Your task to perform on an android device: turn notification dots off Image 0: 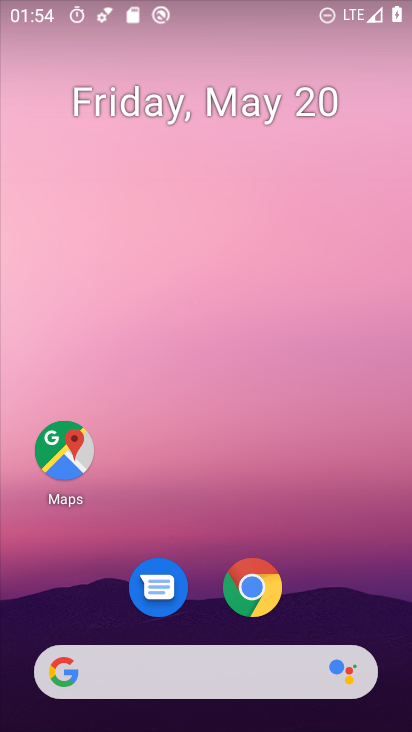
Step 0: drag from (379, 626) to (356, 125)
Your task to perform on an android device: turn notification dots off Image 1: 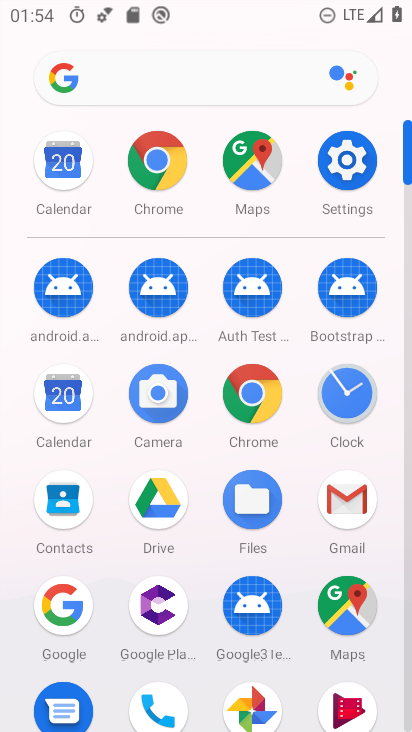
Step 1: click (364, 187)
Your task to perform on an android device: turn notification dots off Image 2: 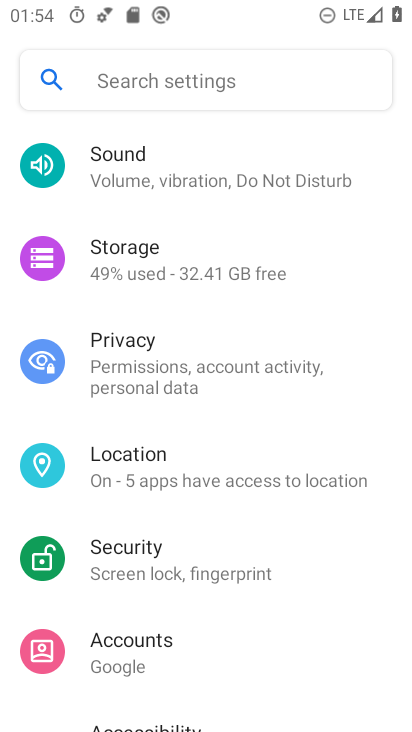
Step 2: drag from (347, 632) to (350, 554)
Your task to perform on an android device: turn notification dots off Image 3: 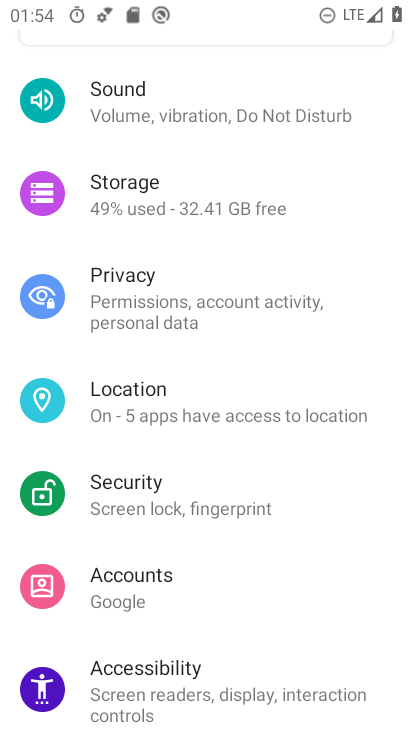
Step 3: drag from (343, 643) to (344, 545)
Your task to perform on an android device: turn notification dots off Image 4: 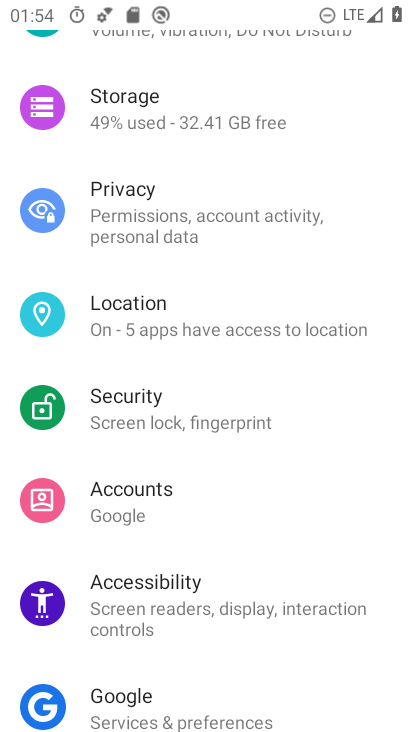
Step 4: drag from (349, 663) to (353, 570)
Your task to perform on an android device: turn notification dots off Image 5: 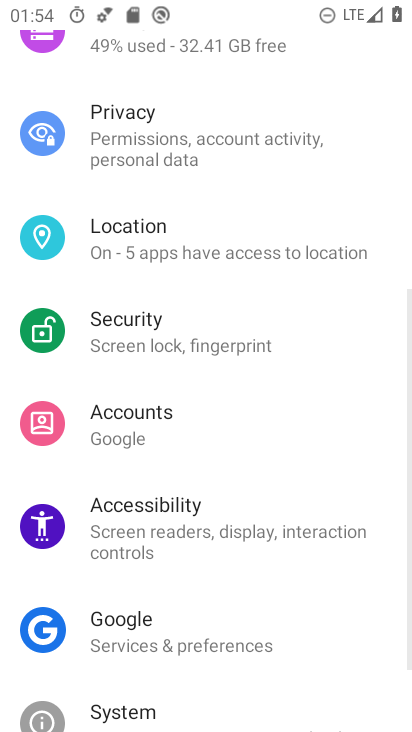
Step 5: drag from (349, 651) to (347, 577)
Your task to perform on an android device: turn notification dots off Image 6: 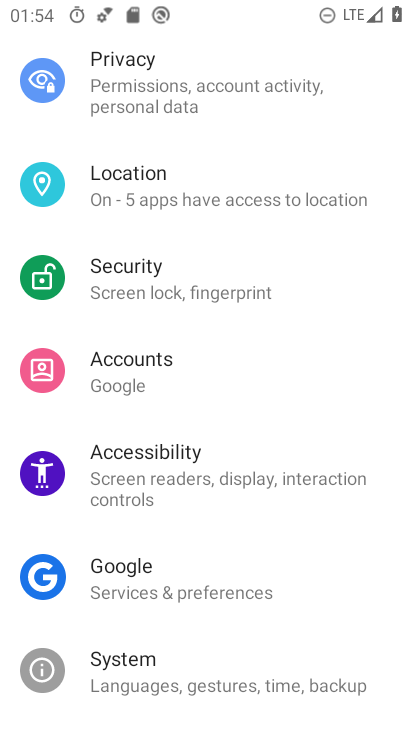
Step 6: drag from (358, 667) to (358, 565)
Your task to perform on an android device: turn notification dots off Image 7: 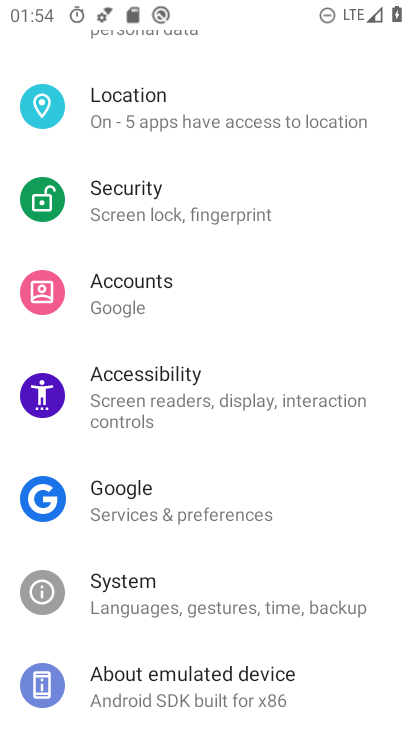
Step 7: drag from (355, 658) to (350, 541)
Your task to perform on an android device: turn notification dots off Image 8: 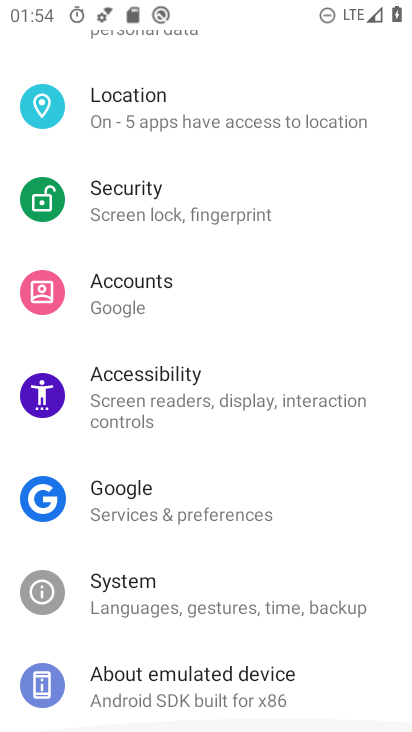
Step 8: drag from (350, 452) to (351, 537)
Your task to perform on an android device: turn notification dots off Image 9: 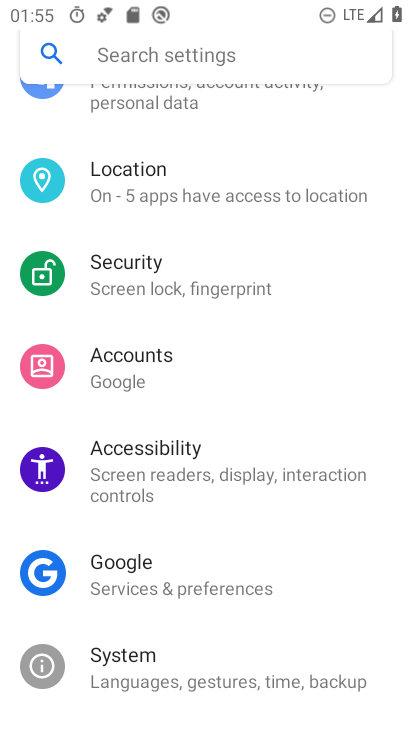
Step 9: drag from (366, 421) to (370, 518)
Your task to perform on an android device: turn notification dots off Image 10: 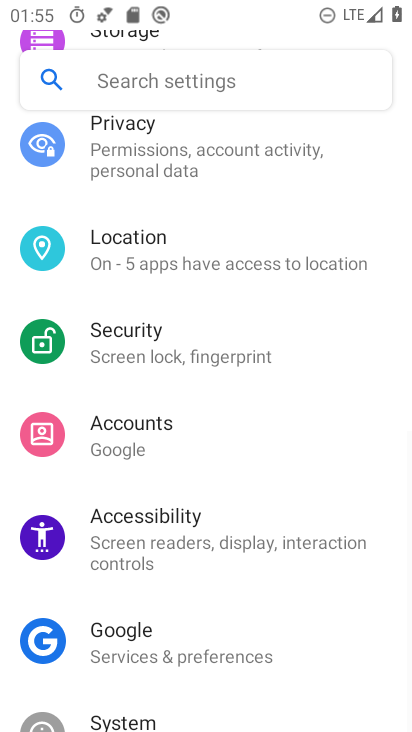
Step 10: drag from (370, 396) to (370, 486)
Your task to perform on an android device: turn notification dots off Image 11: 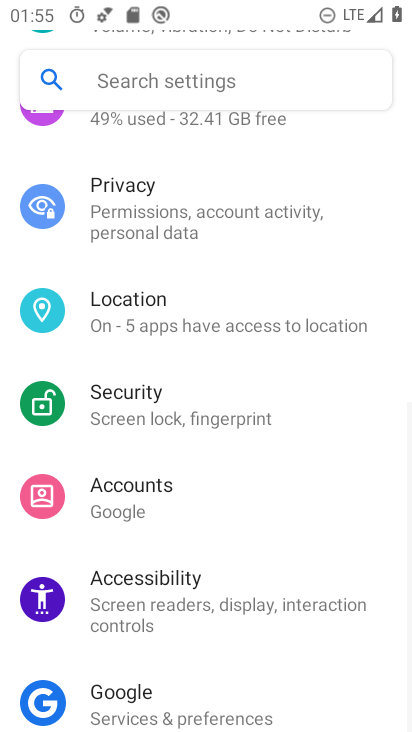
Step 11: drag from (364, 375) to (369, 460)
Your task to perform on an android device: turn notification dots off Image 12: 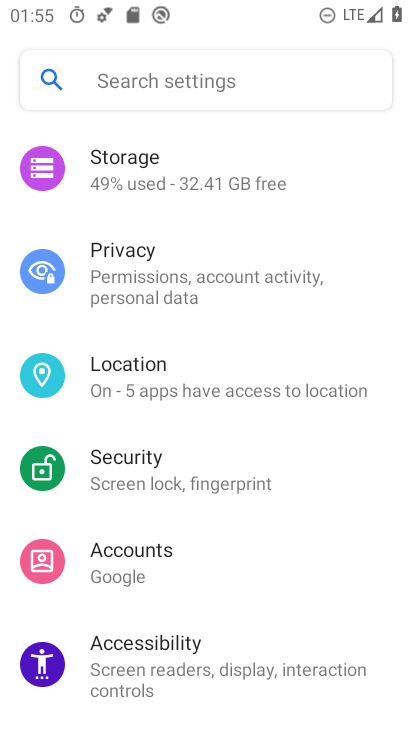
Step 12: drag from (368, 329) to (360, 433)
Your task to perform on an android device: turn notification dots off Image 13: 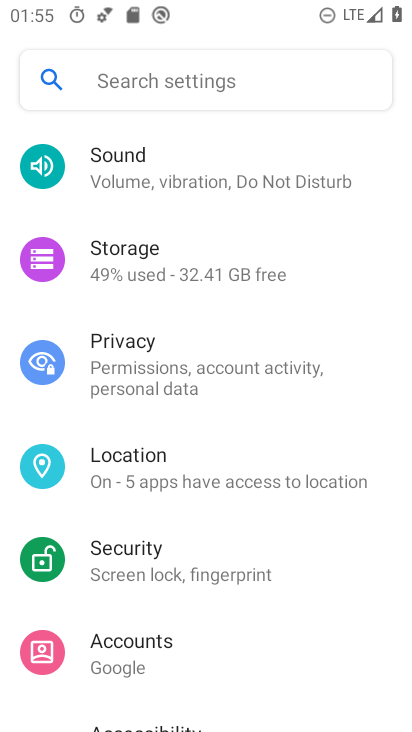
Step 13: drag from (366, 326) to (367, 415)
Your task to perform on an android device: turn notification dots off Image 14: 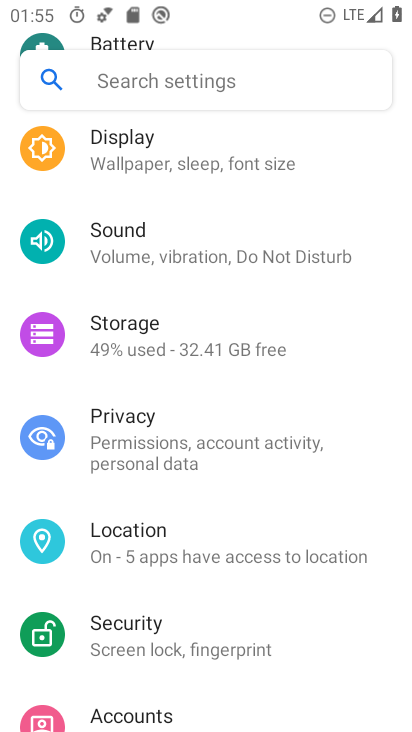
Step 14: drag from (364, 303) to (358, 386)
Your task to perform on an android device: turn notification dots off Image 15: 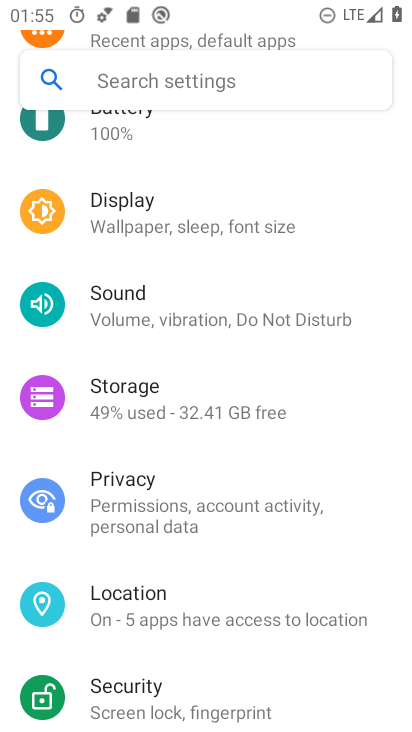
Step 15: drag from (366, 260) to (362, 379)
Your task to perform on an android device: turn notification dots off Image 16: 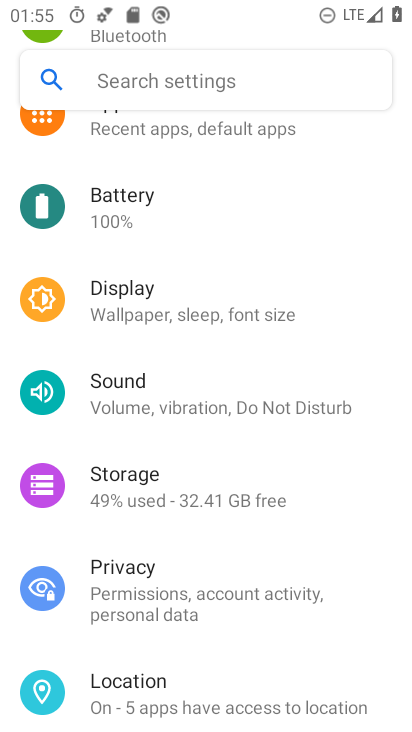
Step 16: drag from (370, 275) to (361, 369)
Your task to perform on an android device: turn notification dots off Image 17: 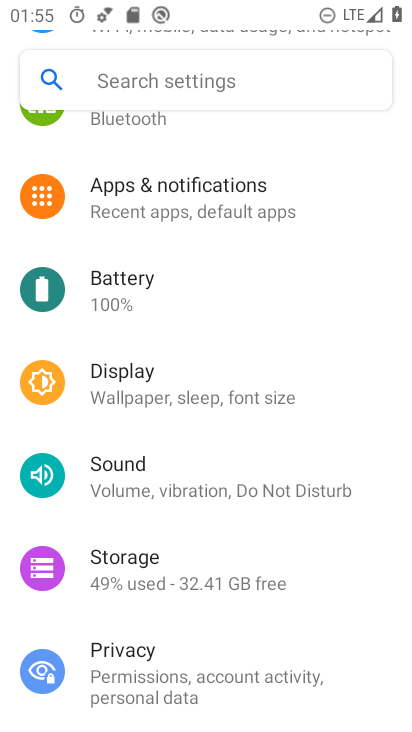
Step 17: drag from (361, 281) to (357, 356)
Your task to perform on an android device: turn notification dots off Image 18: 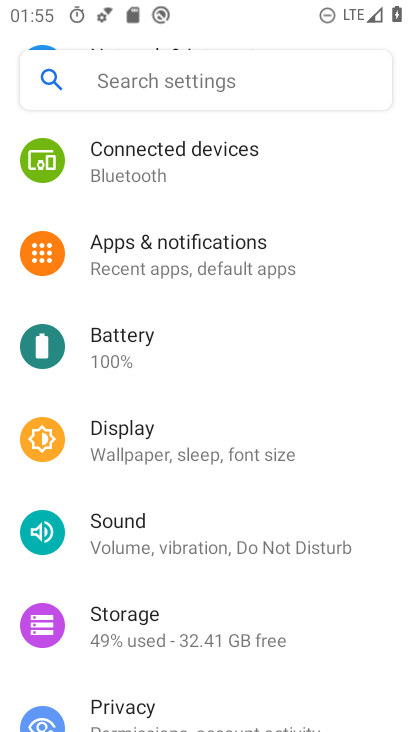
Step 18: drag from (357, 266) to (352, 346)
Your task to perform on an android device: turn notification dots off Image 19: 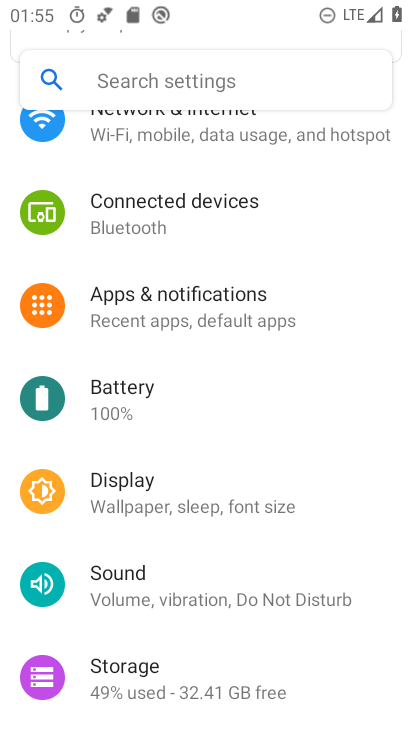
Step 19: click (219, 324)
Your task to perform on an android device: turn notification dots off Image 20: 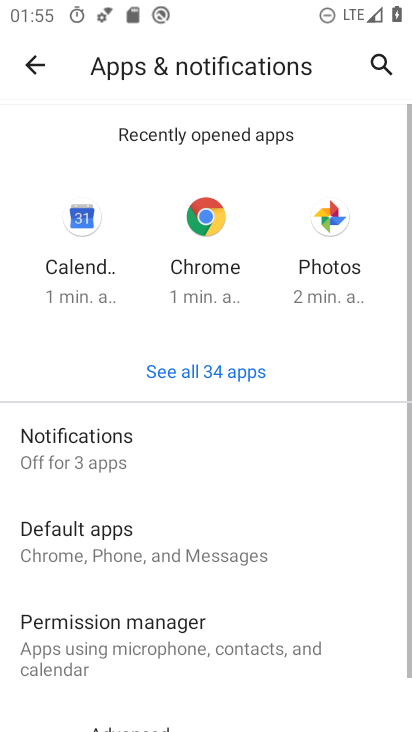
Step 20: drag from (283, 474) to (300, 376)
Your task to perform on an android device: turn notification dots off Image 21: 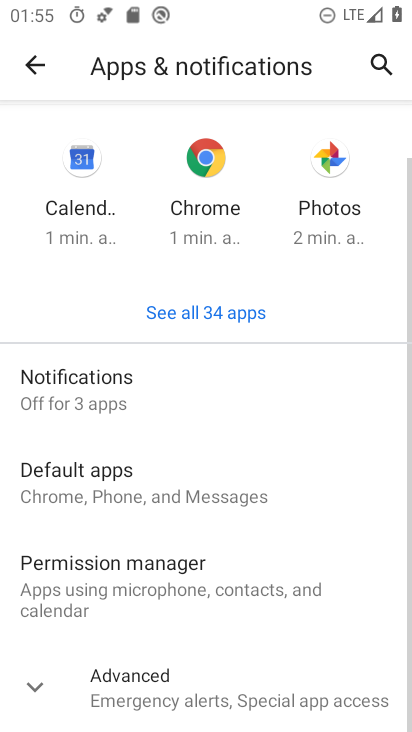
Step 21: drag from (310, 498) to (316, 401)
Your task to perform on an android device: turn notification dots off Image 22: 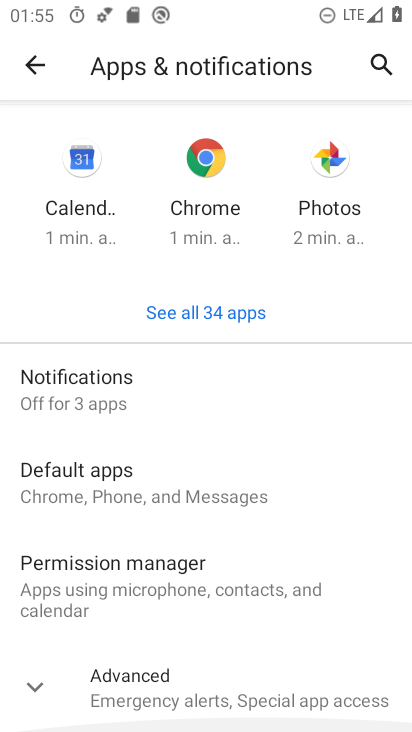
Step 22: click (105, 386)
Your task to perform on an android device: turn notification dots off Image 23: 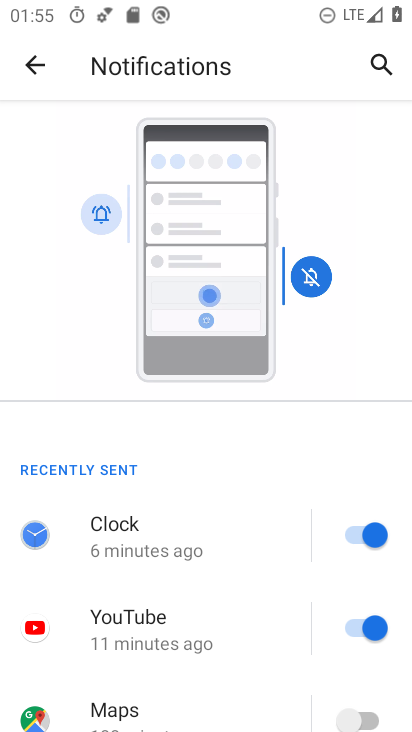
Step 23: drag from (253, 554) to (250, 467)
Your task to perform on an android device: turn notification dots off Image 24: 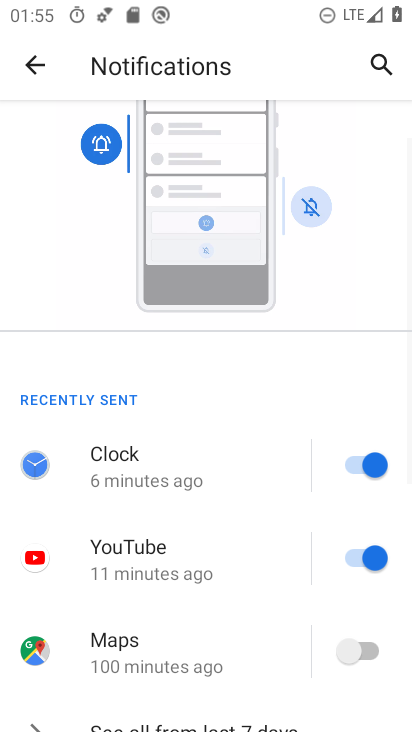
Step 24: drag from (262, 578) to (260, 498)
Your task to perform on an android device: turn notification dots off Image 25: 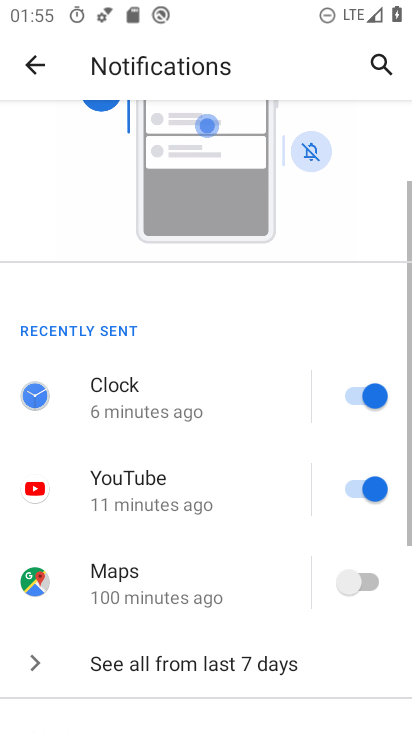
Step 25: drag from (270, 600) to (270, 533)
Your task to perform on an android device: turn notification dots off Image 26: 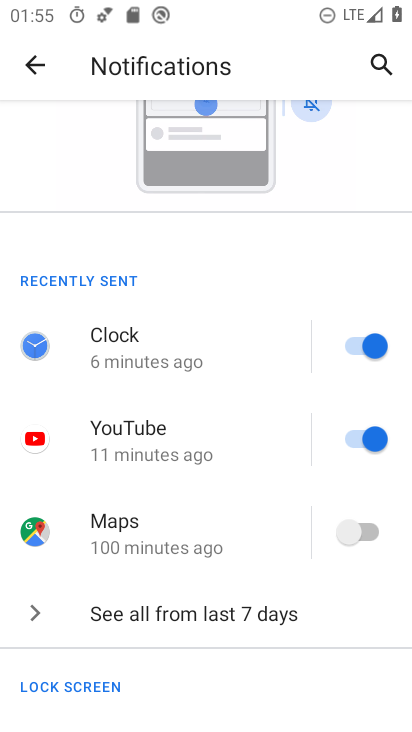
Step 26: drag from (266, 618) to (265, 536)
Your task to perform on an android device: turn notification dots off Image 27: 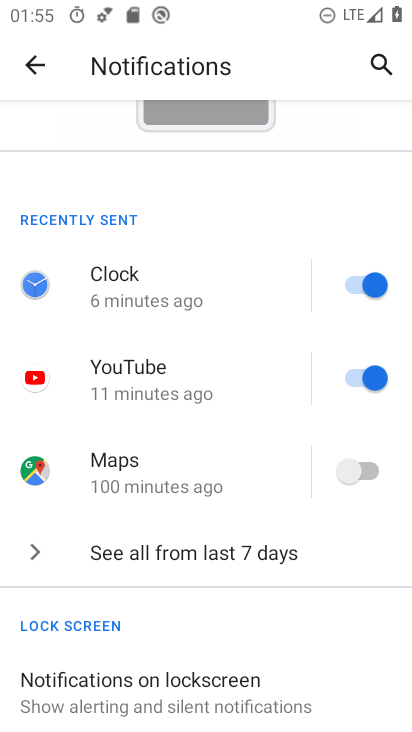
Step 27: drag from (263, 622) to (264, 566)
Your task to perform on an android device: turn notification dots off Image 28: 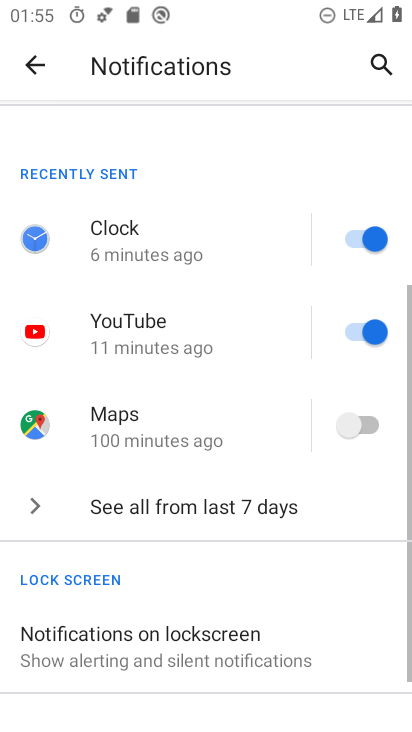
Step 28: drag from (265, 619) to (266, 545)
Your task to perform on an android device: turn notification dots off Image 29: 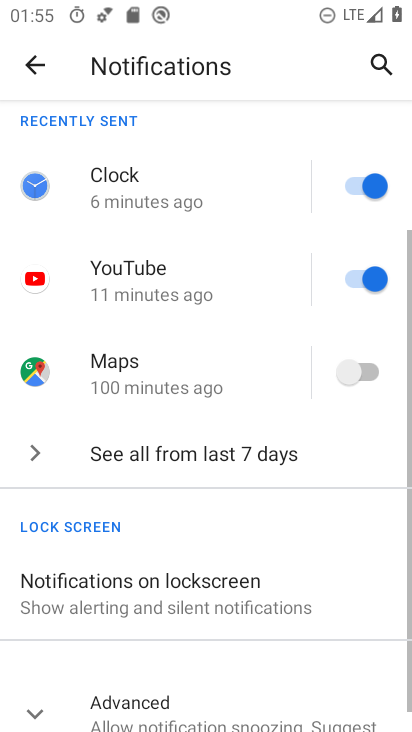
Step 29: drag from (264, 632) to (266, 562)
Your task to perform on an android device: turn notification dots off Image 30: 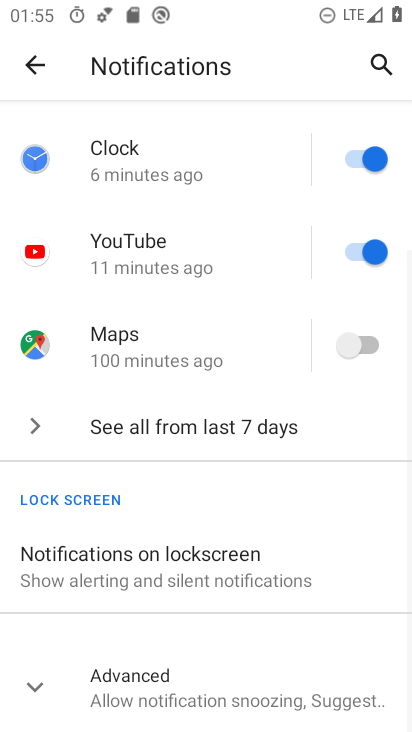
Step 30: click (260, 590)
Your task to perform on an android device: turn notification dots off Image 31: 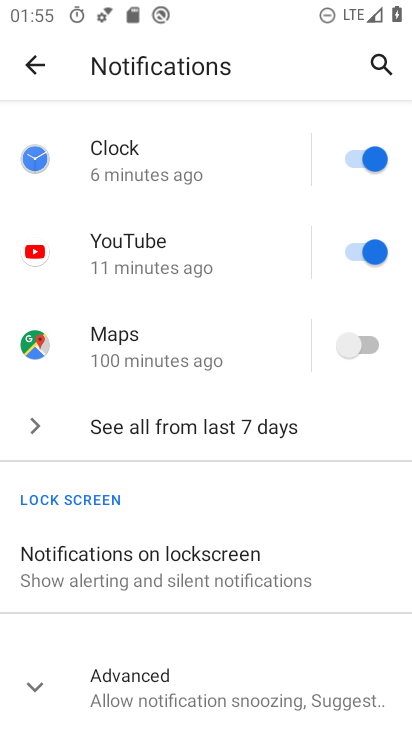
Step 31: click (239, 703)
Your task to perform on an android device: turn notification dots off Image 32: 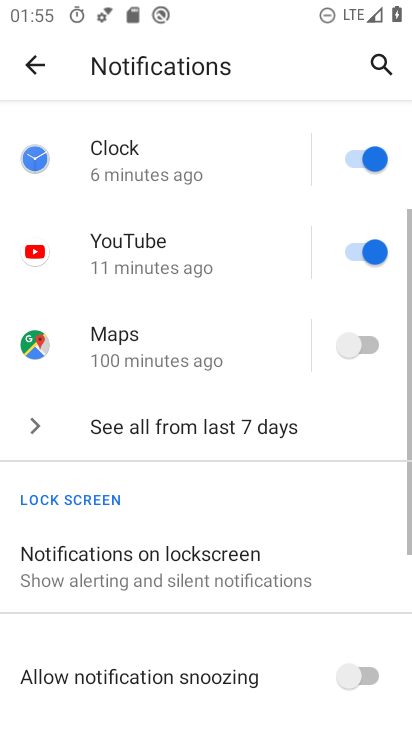
Step 32: drag from (278, 637) to (286, 562)
Your task to perform on an android device: turn notification dots off Image 33: 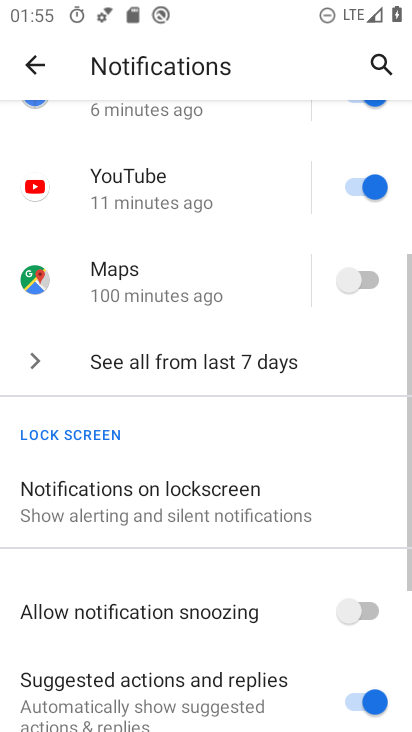
Step 33: drag from (285, 645) to (286, 545)
Your task to perform on an android device: turn notification dots off Image 34: 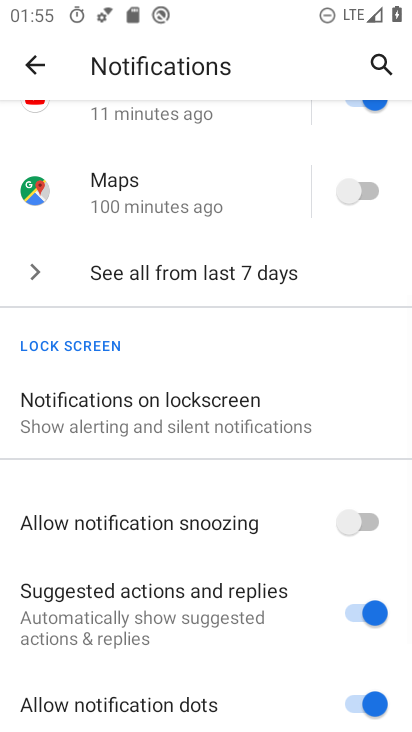
Step 34: drag from (279, 667) to (281, 562)
Your task to perform on an android device: turn notification dots off Image 35: 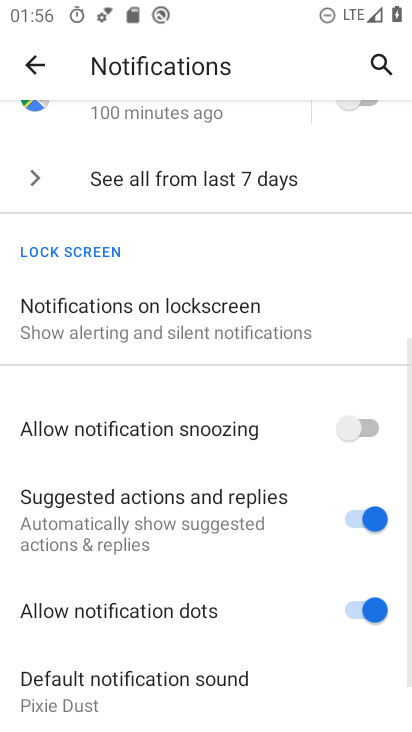
Step 35: drag from (285, 665) to (285, 570)
Your task to perform on an android device: turn notification dots off Image 36: 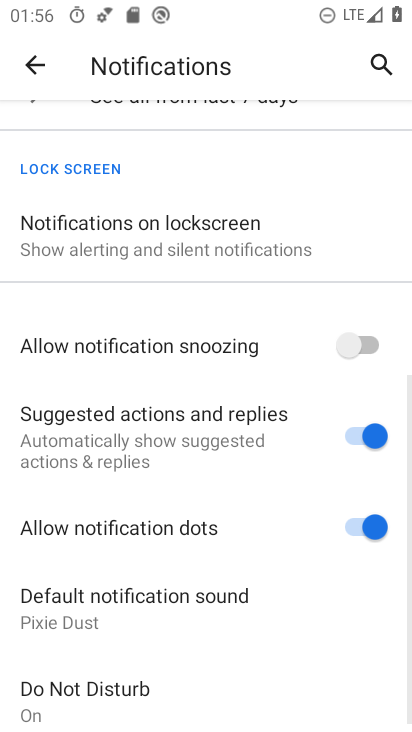
Step 36: drag from (293, 671) to (300, 615)
Your task to perform on an android device: turn notification dots off Image 37: 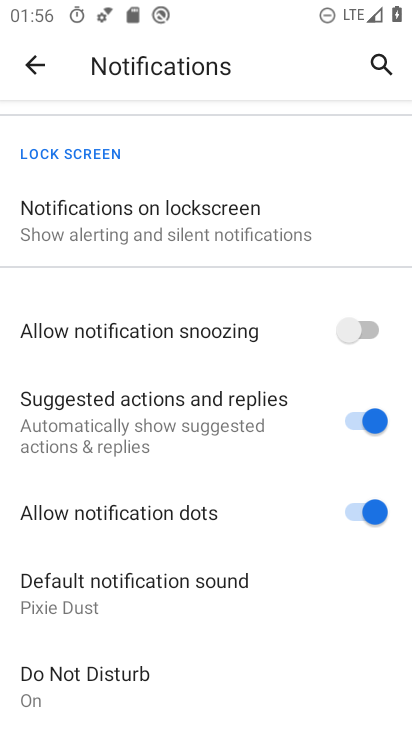
Step 37: click (387, 509)
Your task to perform on an android device: turn notification dots off Image 38: 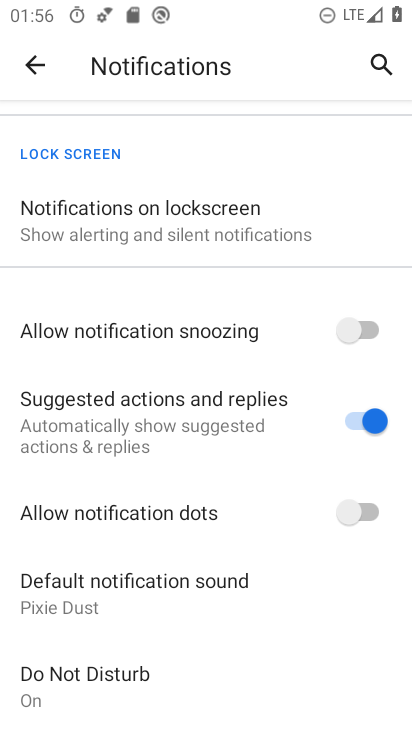
Step 38: task complete